Your task to perform on an android device: Set an alarm for 3pm Image 0: 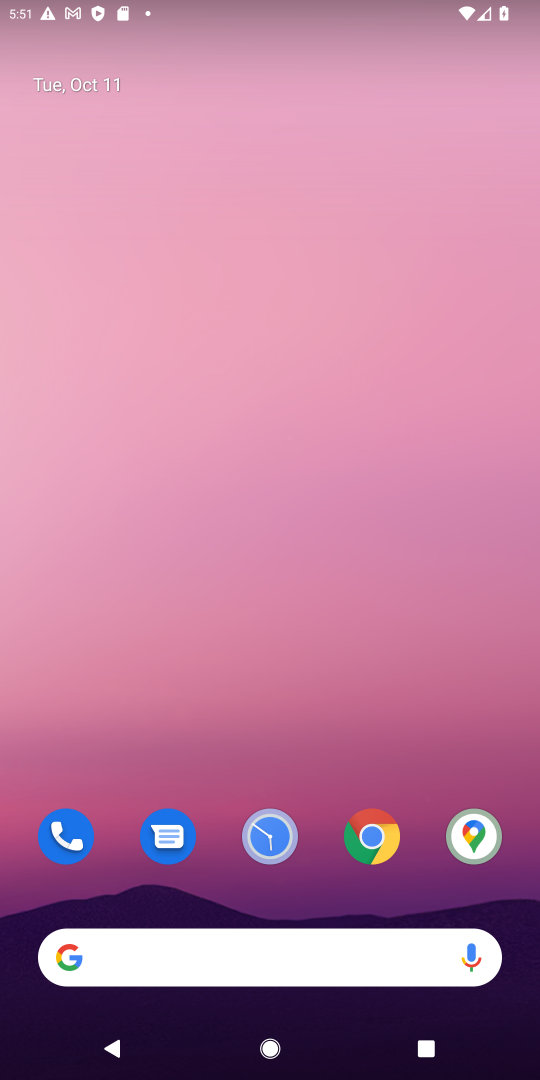
Step 0: click (270, 834)
Your task to perform on an android device: Set an alarm for 3pm Image 1: 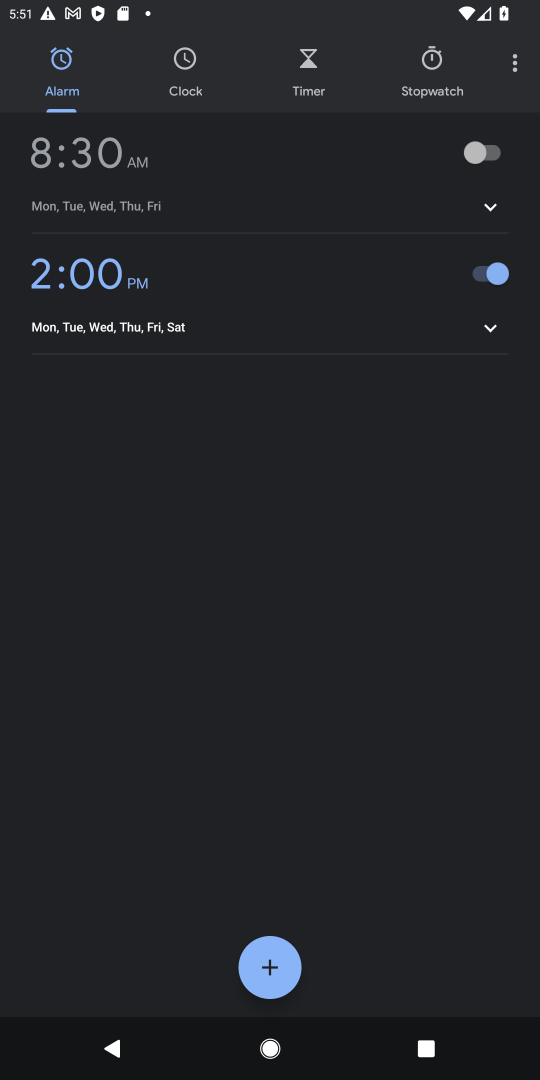
Step 1: click (95, 267)
Your task to perform on an android device: Set an alarm for 3pm Image 2: 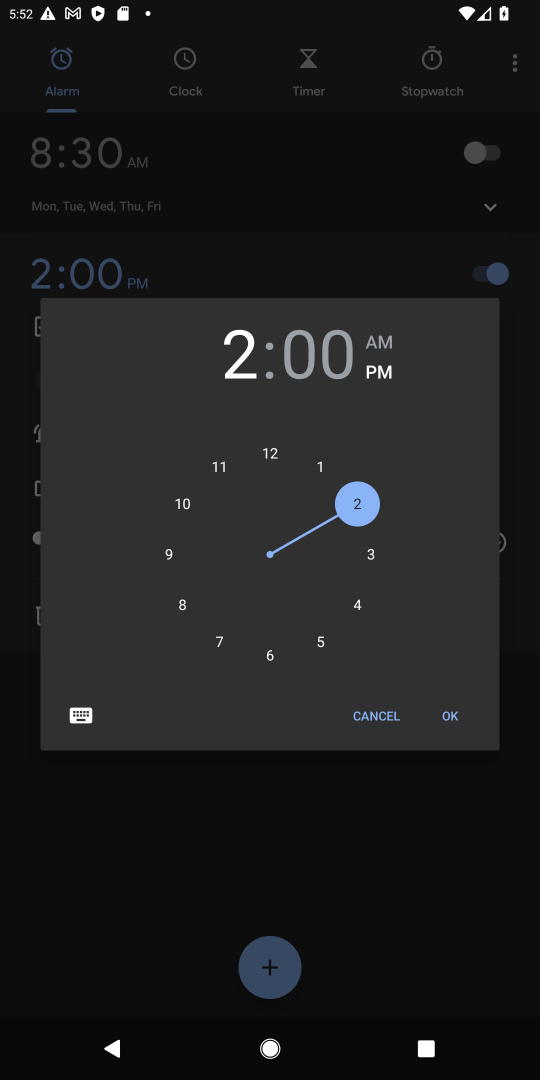
Step 2: click (373, 550)
Your task to perform on an android device: Set an alarm for 3pm Image 3: 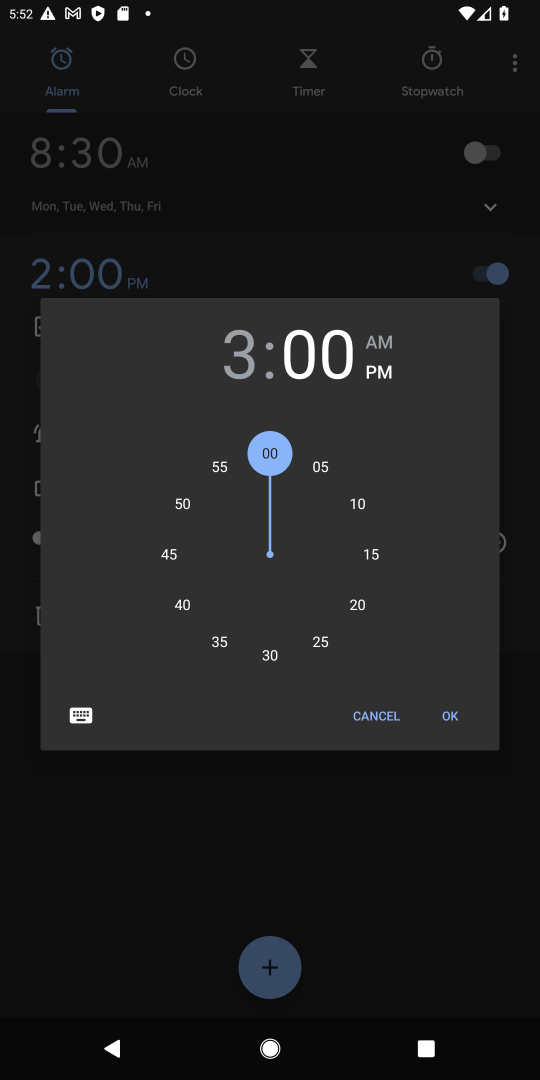
Step 3: click (449, 711)
Your task to perform on an android device: Set an alarm for 3pm Image 4: 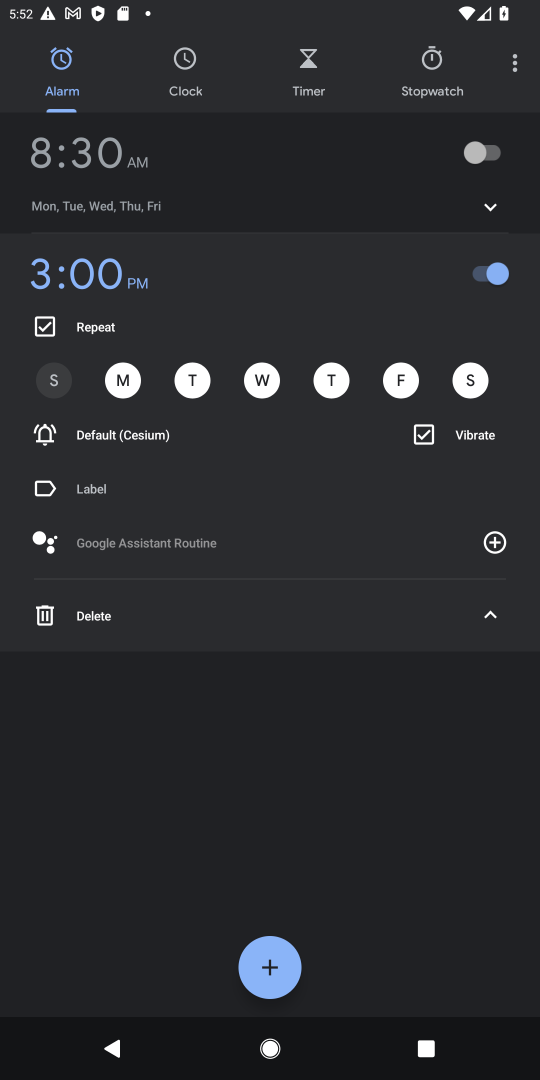
Step 4: click (492, 611)
Your task to perform on an android device: Set an alarm for 3pm Image 5: 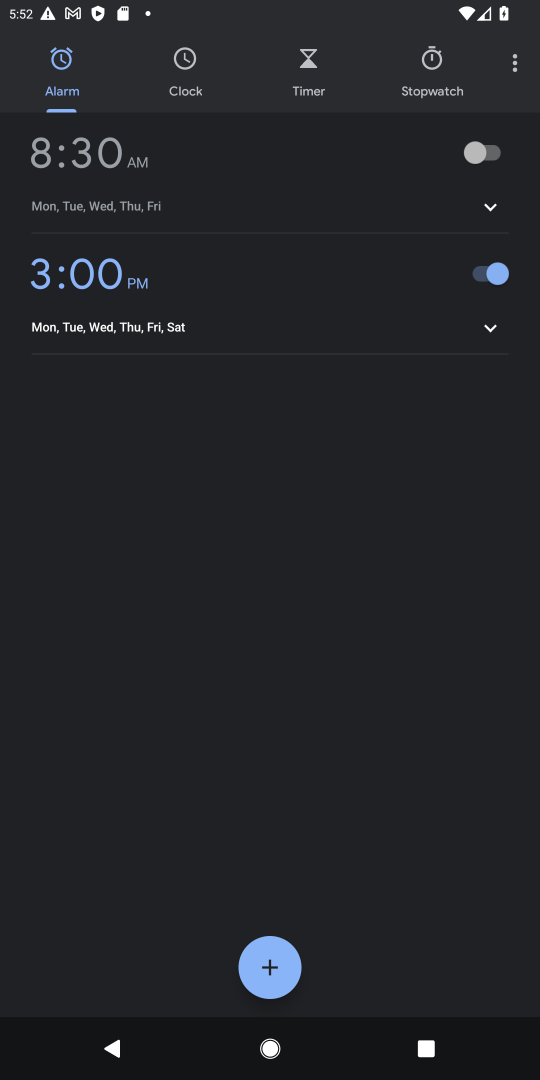
Step 5: task complete